Your task to perform on an android device: Go to eBay Image 0: 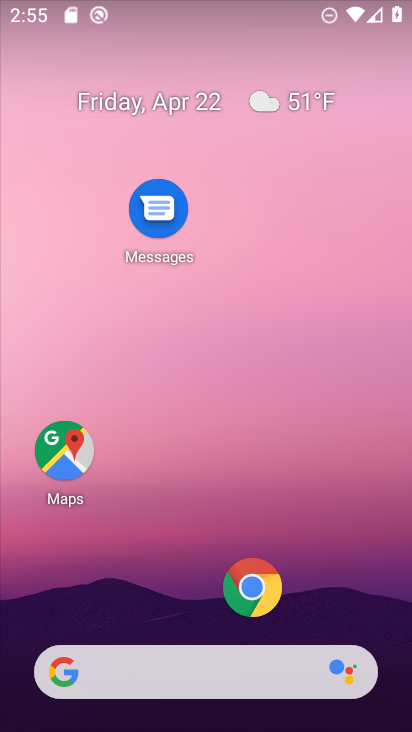
Step 0: click (215, 668)
Your task to perform on an android device: Go to eBay Image 1: 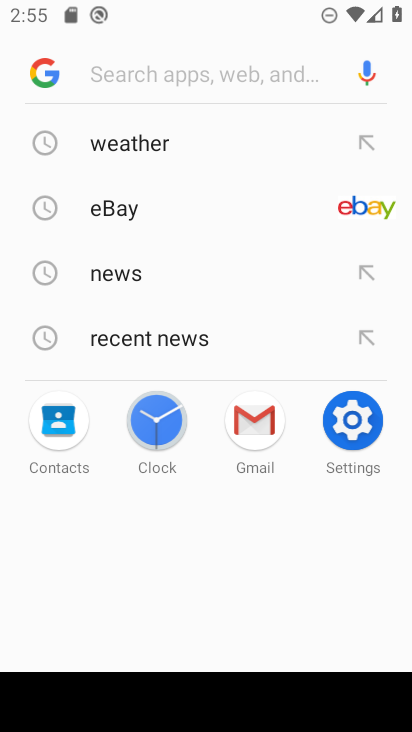
Step 1: click (126, 216)
Your task to perform on an android device: Go to eBay Image 2: 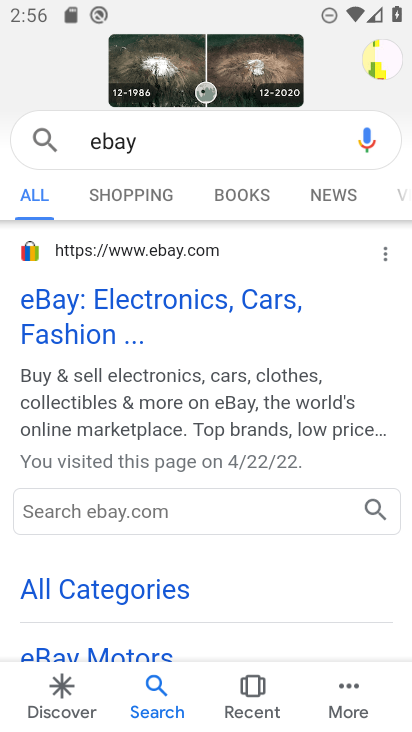
Step 2: click (91, 300)
Your task to perform on an android device: Go to eBay Image 3: 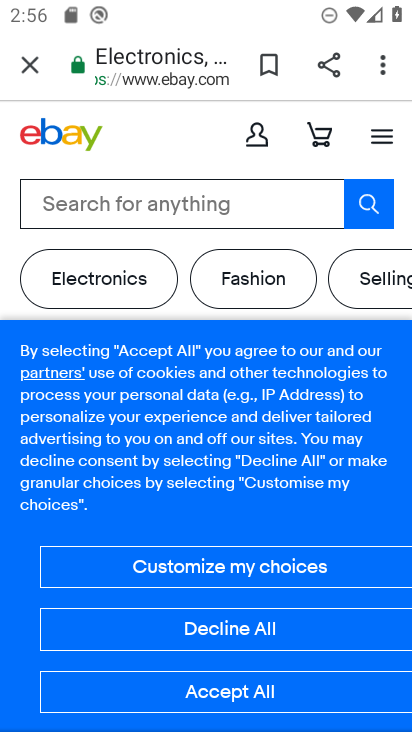
Step 3: task complete